Your task to perform on an android device: change text size in settings app Image 0: 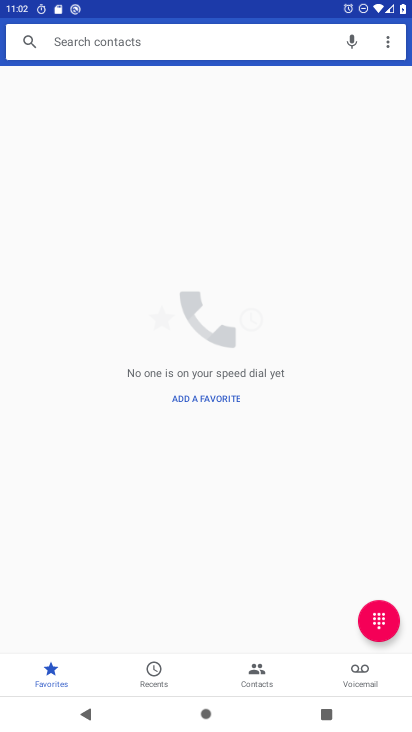
Step 0: press home button
Your task to perform on an android device: change text size in settings app Image 1: 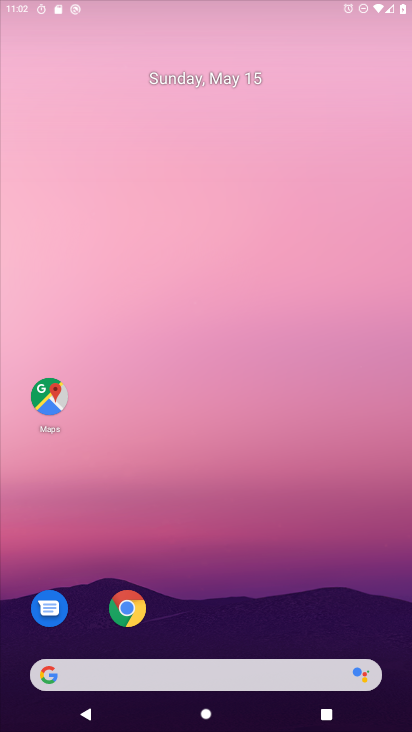
Step 1: drag from (352, 600) to (362, 229)
Your task to perform on an android device: change text size in settings app Image 2: 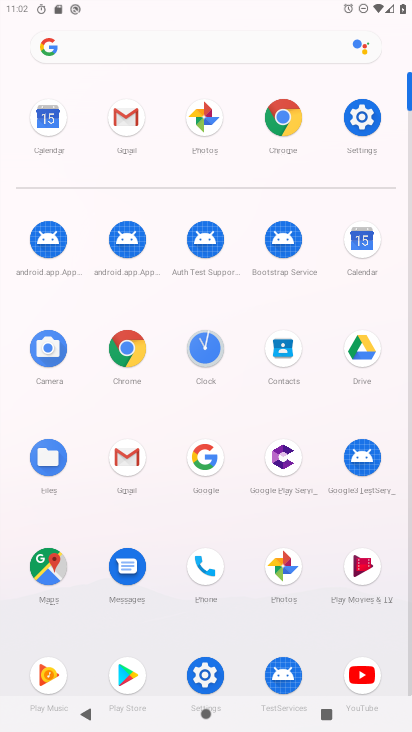
Step 2: click (356, 137)
Your task to perform on an android device: change text size in settings app Image 3: 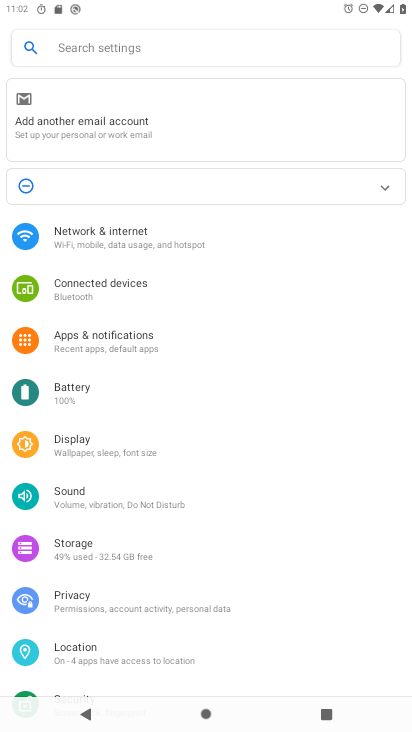
Step 3: click (64, 453)
Your task to perform on an android device: change text size in settings app Image 4: 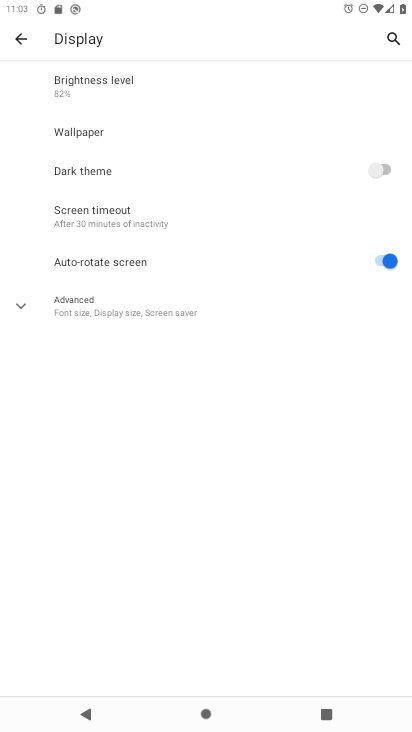
Step 4: click (89, 304)
Your task to perform on an android device: change text size in settings app Image 5: 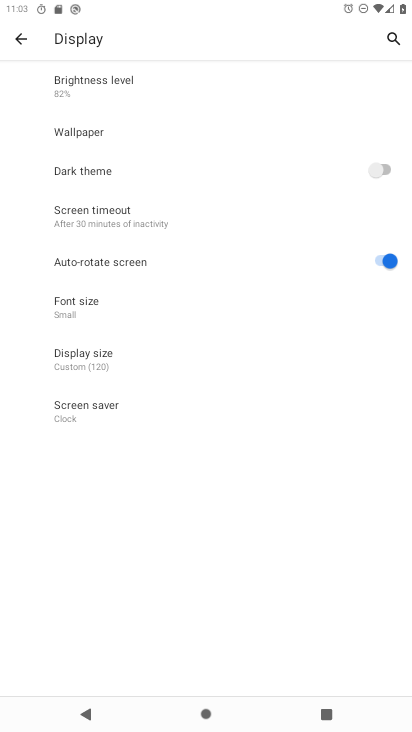
Step 5: click (91, 311)
Your task to perform on an android device: change text size in settings app Image 6: 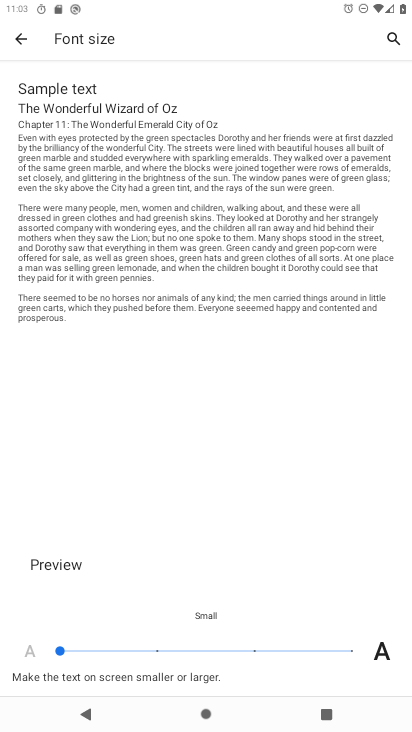
Step 6: click (164, 648)
Your task to perform on an android device: change text size in settings app Image 7: 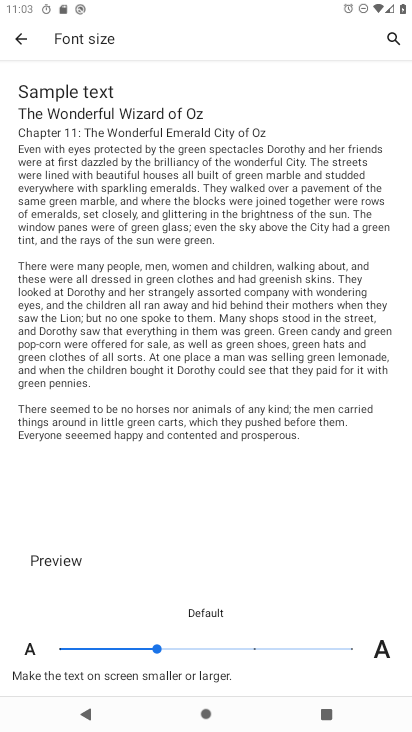
Step 7: task complete